Your task to perform on an android device: Go to Google maps Image 0: 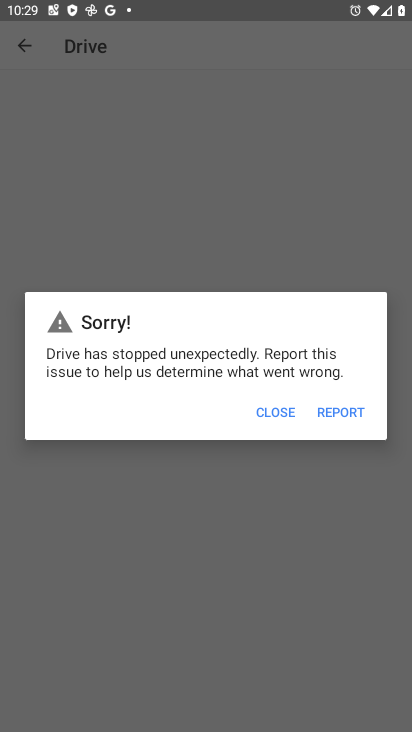
Step 0: press home button
Your task to perform on an android device: Go to Google maps Image 1: 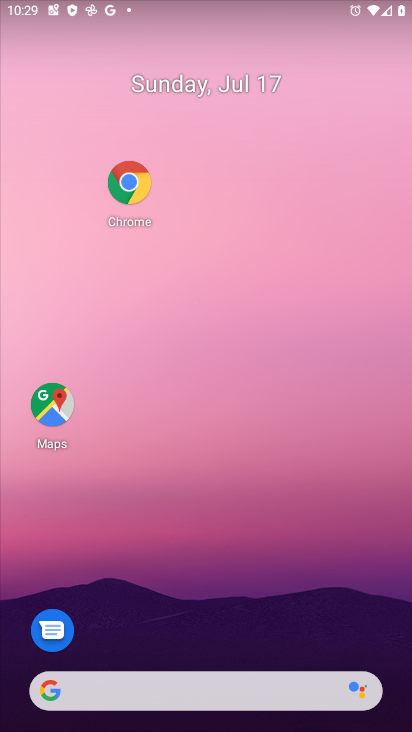
Step 1: click (51, 408)
Your task to perform on an android device: Go to Google maps Image 2: 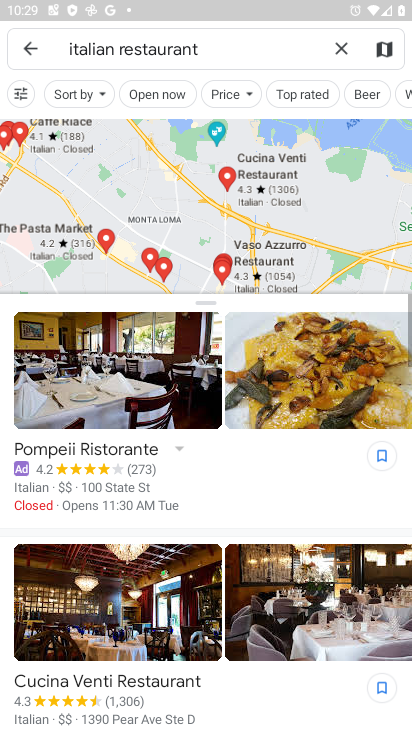
Step 2: task complete